Your task to perform on an android device: Open Google Maps Image 0: 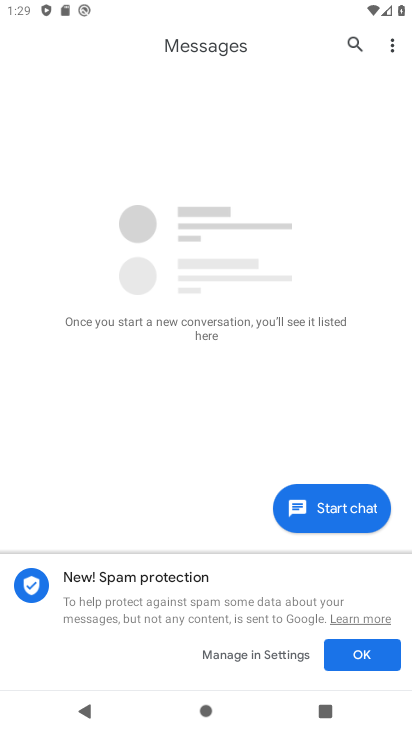
Step 0: press home button
Your task to perform on an android device: Open Google Maps Image 1: 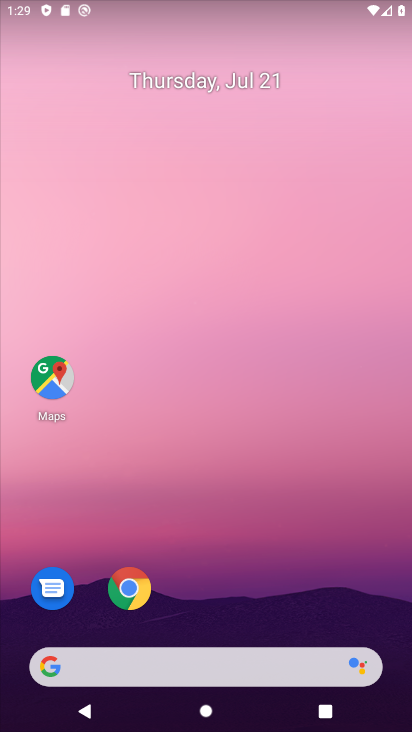
Step 1: click (53, 391)
Your task to perform on an android device: Open Google Maps Image 2: 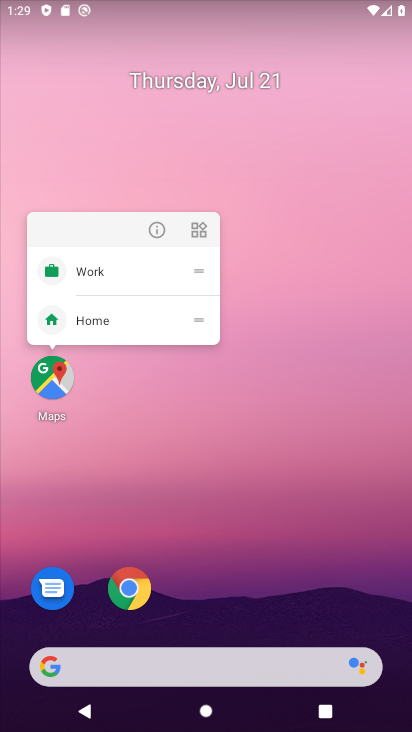
Step 2: click (35, 383)
Your task to perform on an android device: Open Google Maps Image 3: 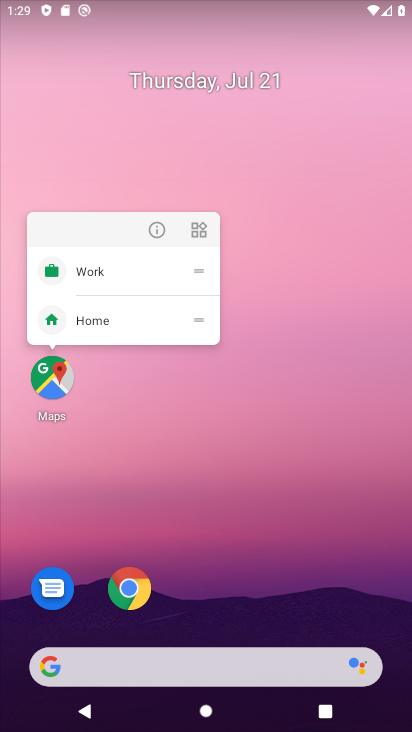
Step 3: click (58, 385)
Your task to perform on an android device: Open Google Maps Image 4: 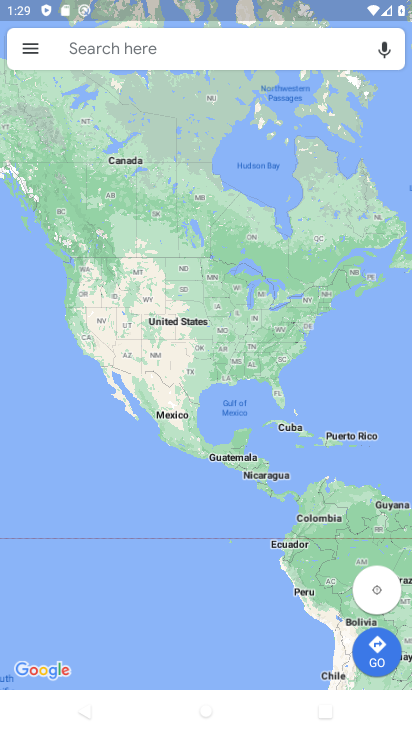
Step 4: task complete